Your task to perform on an android device: turn off location history Image 0: 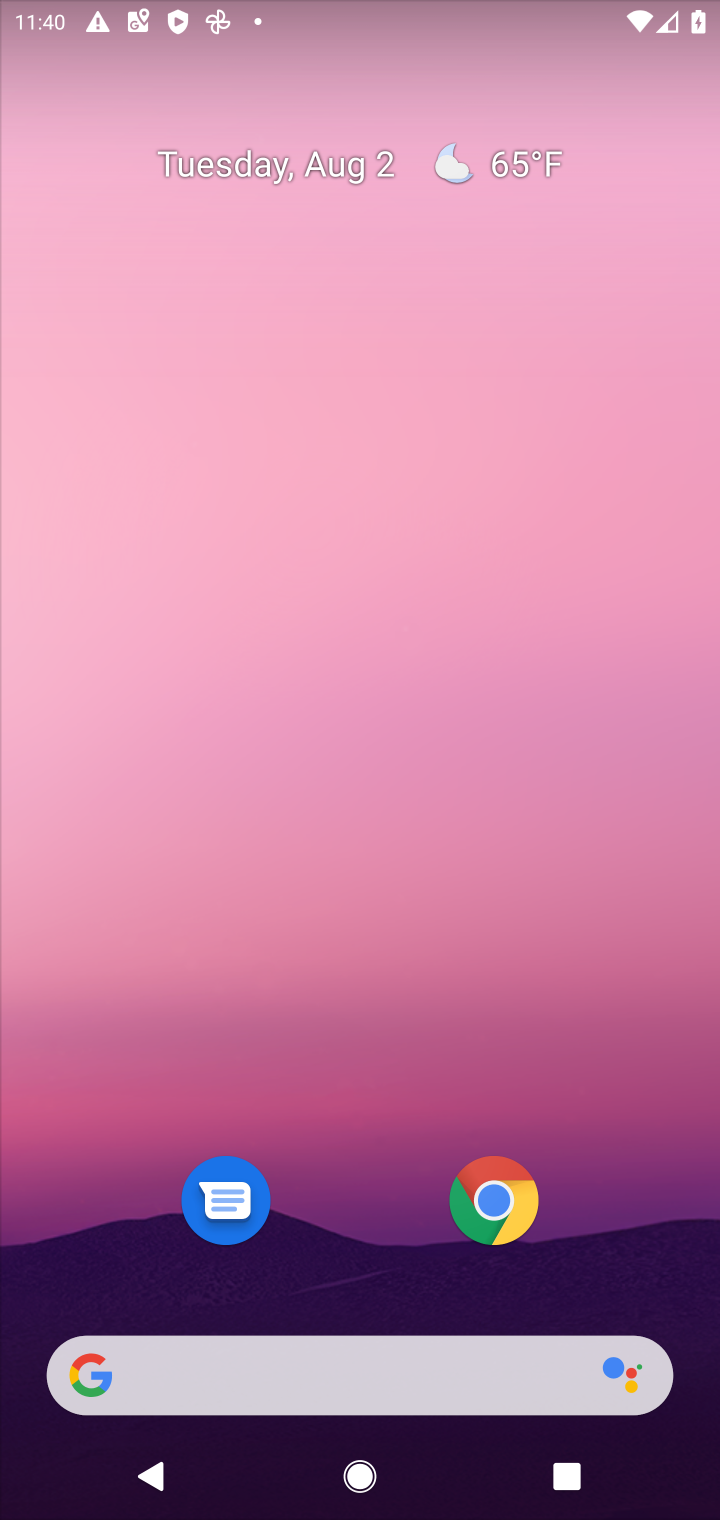
Step 0: drag from (691, 1301) to (607, 195)
Your task to perform on an android device: turn off location history Image 1: 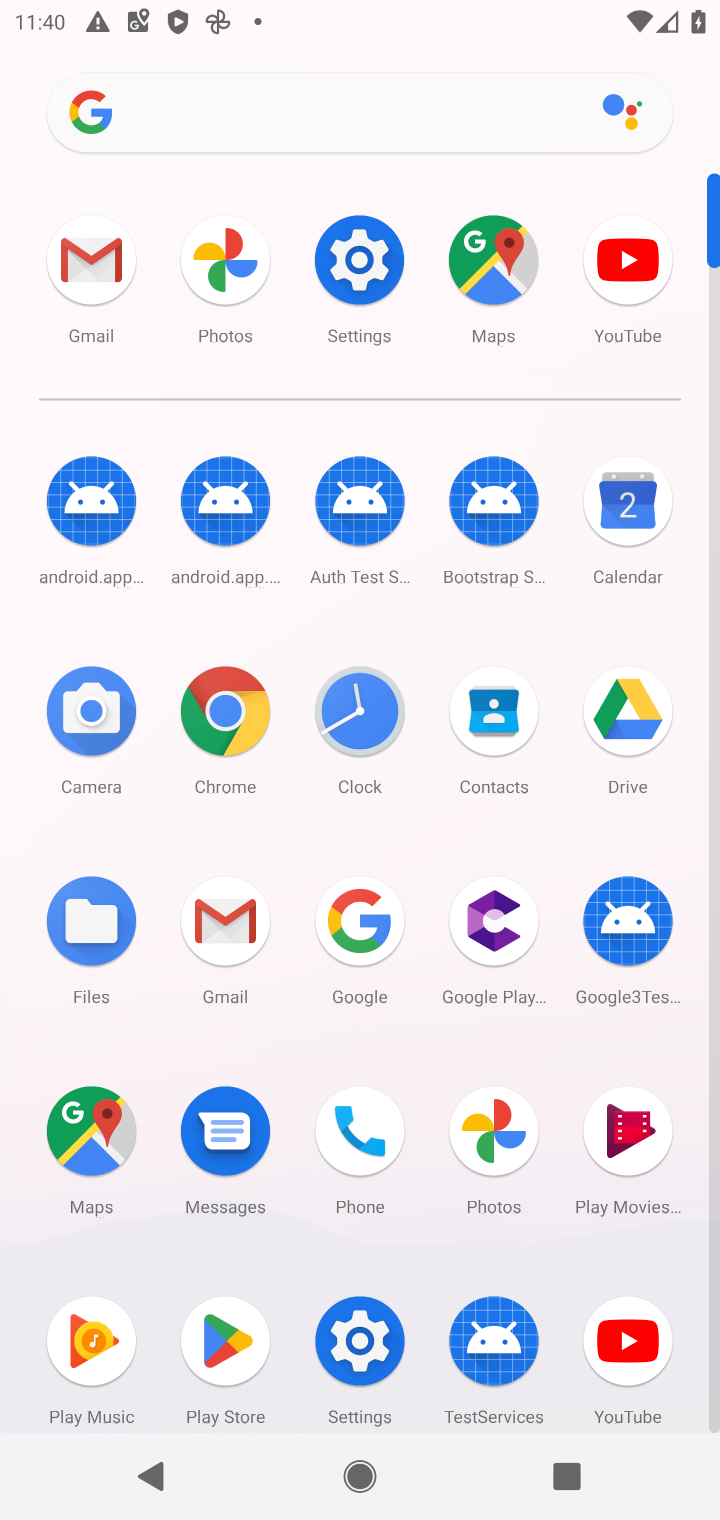
Step 1: click (356, 1336)
Your task to perform on an android device: turn off location history Image 2: 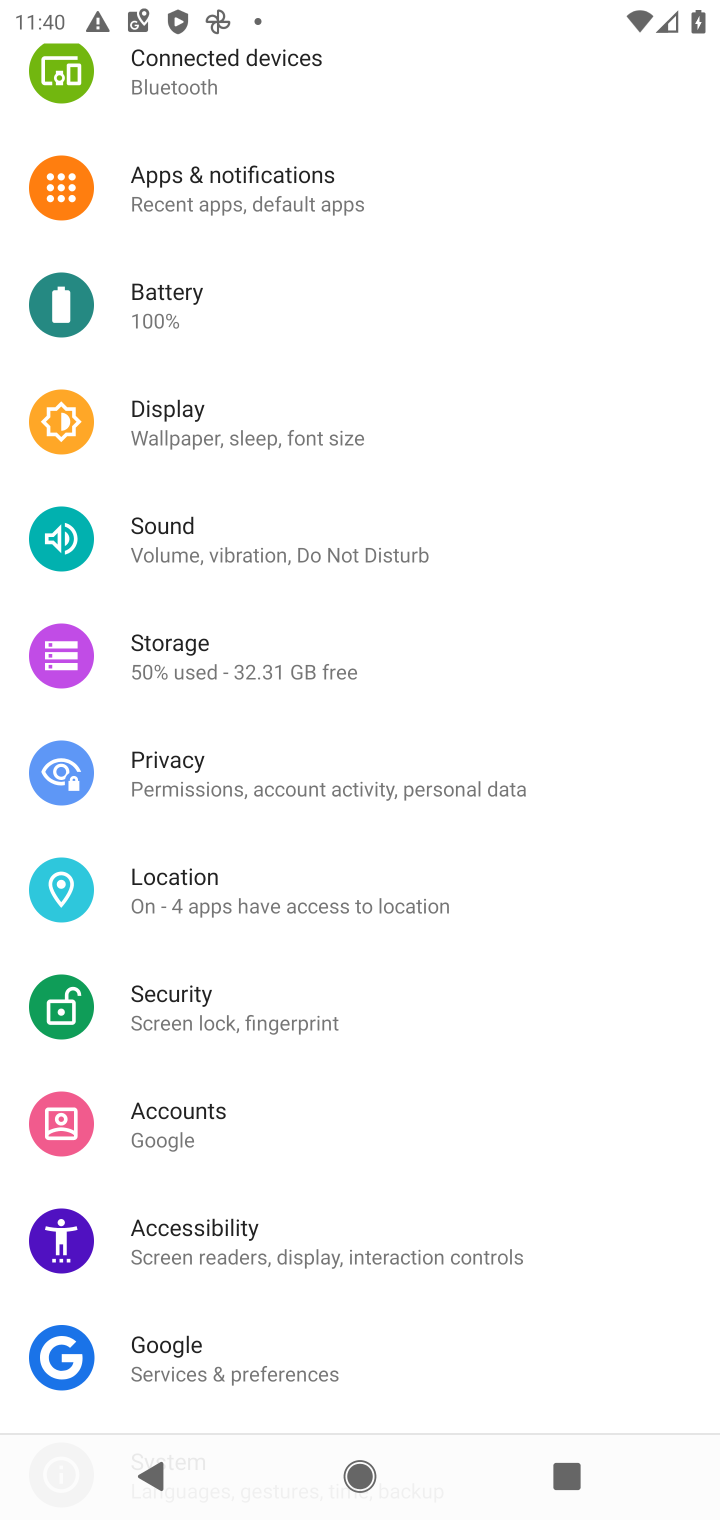
Step 2: click (181, 893)
Your task to perform on an android device: turn off location history Image 3: 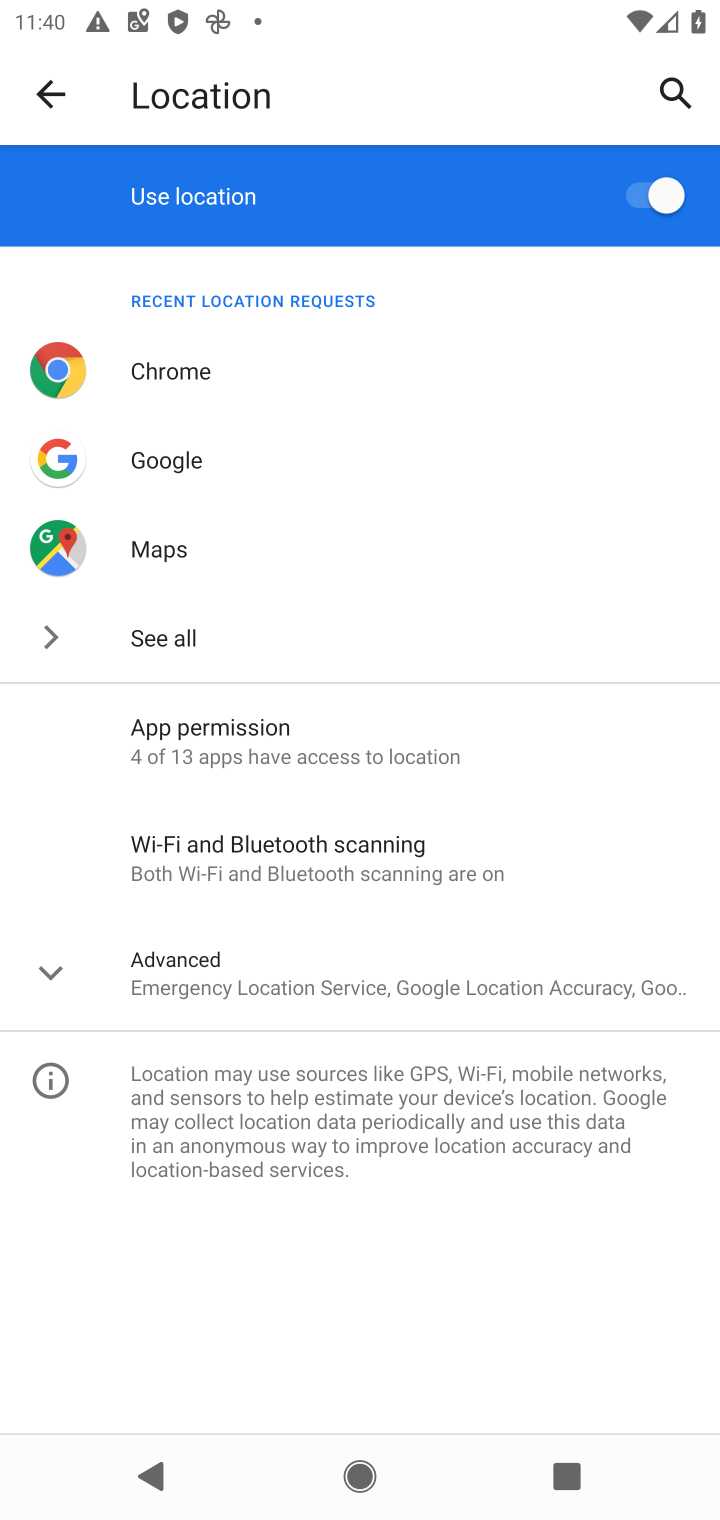
Step 3: click (43, 971)
Your task to perform on an android device: turn off location history Image 4: 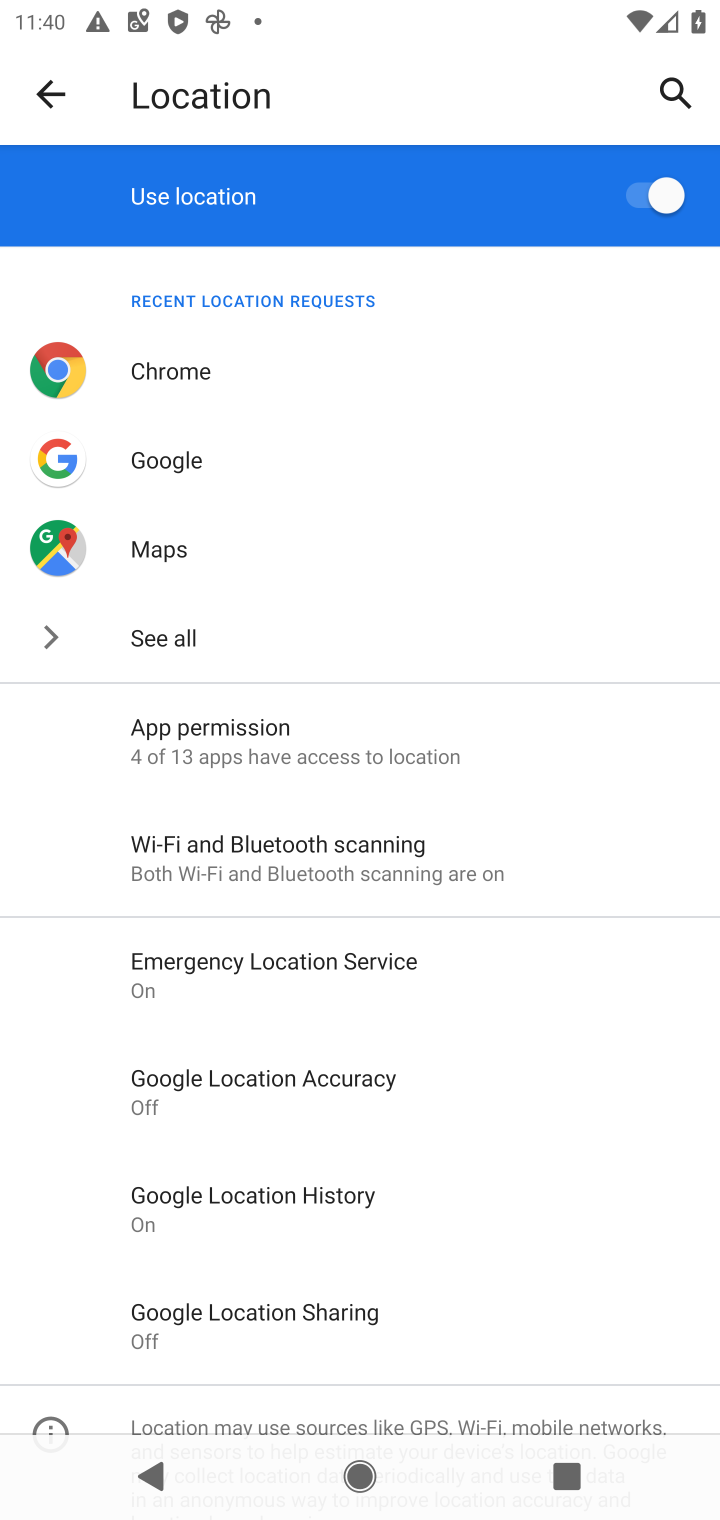
Step 4: click (230, 1193)
Your task to perform on an android device: turn off location history Image 5: 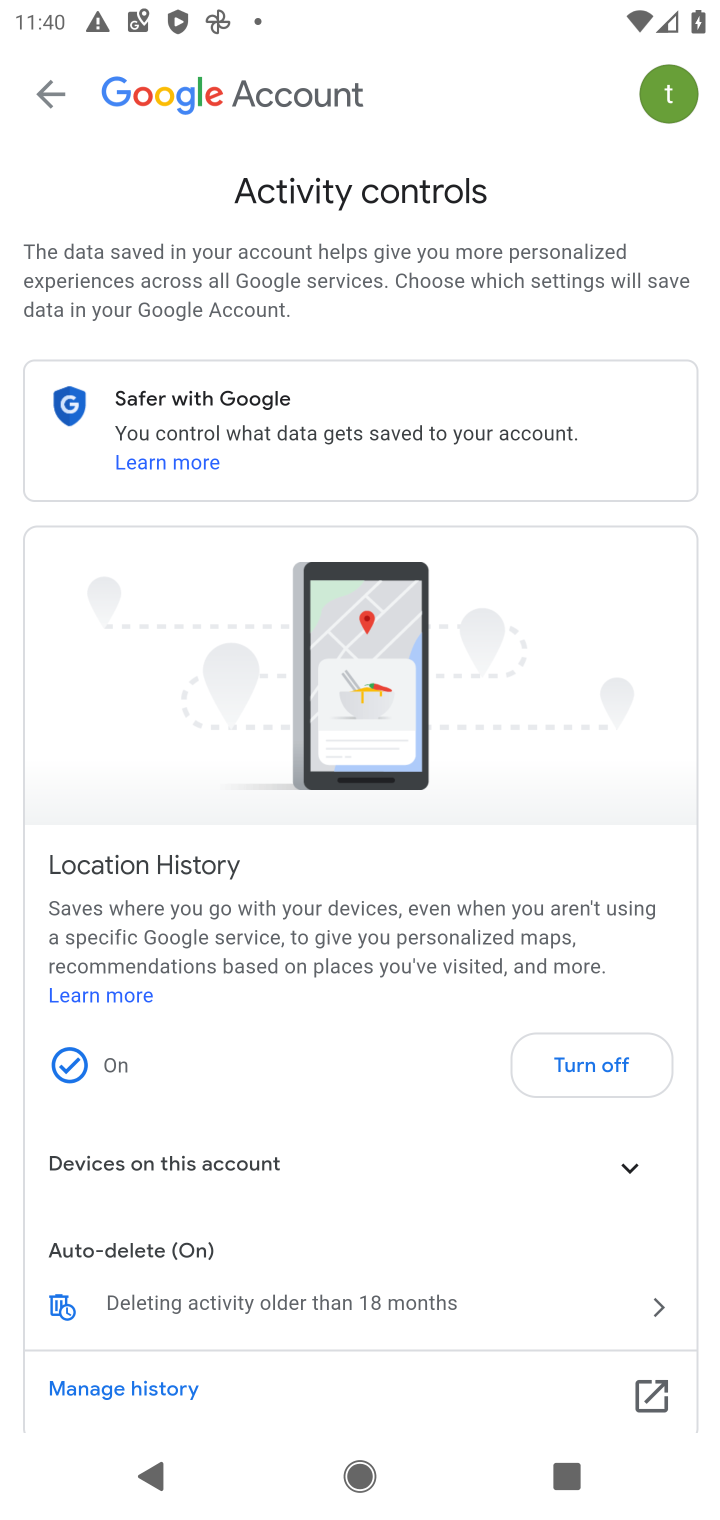
Step 5: click (596, 1063)
Your task to perform on an android device: turn off location history Image 6: 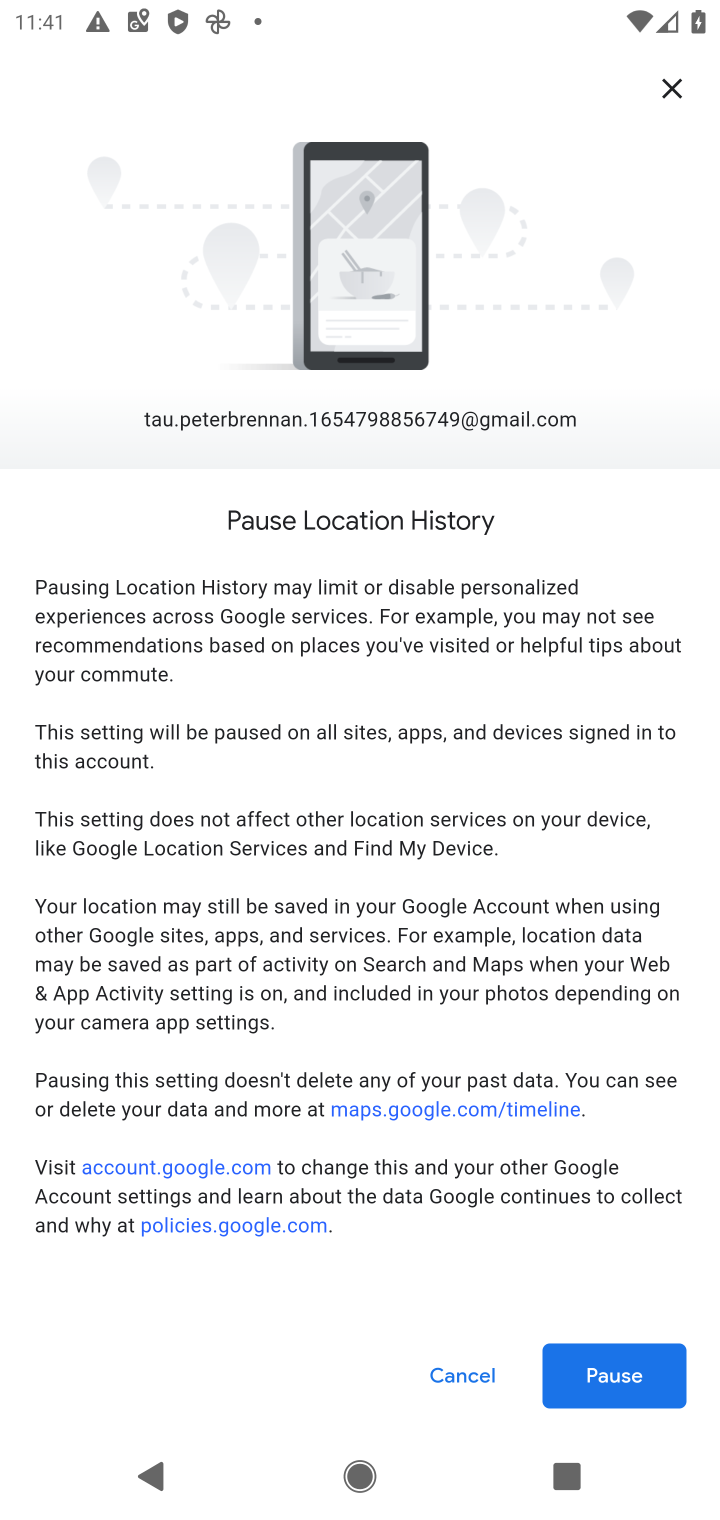
Step 6: click (626, 1381)
Your task to perform on an android device: turn off location history Image 7: 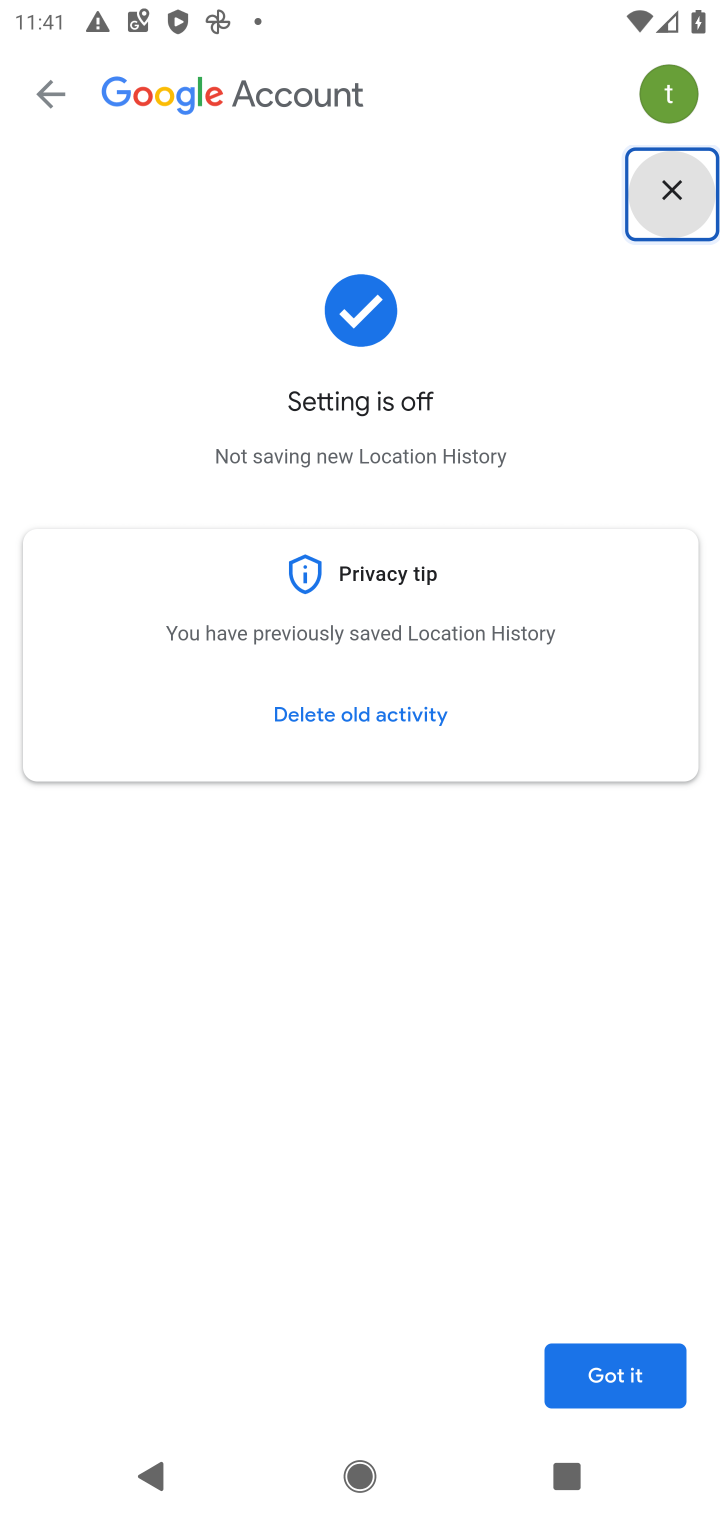
Step 7: click (626, 1381)
Your task to perform on an android device: turn off location history Image 8: 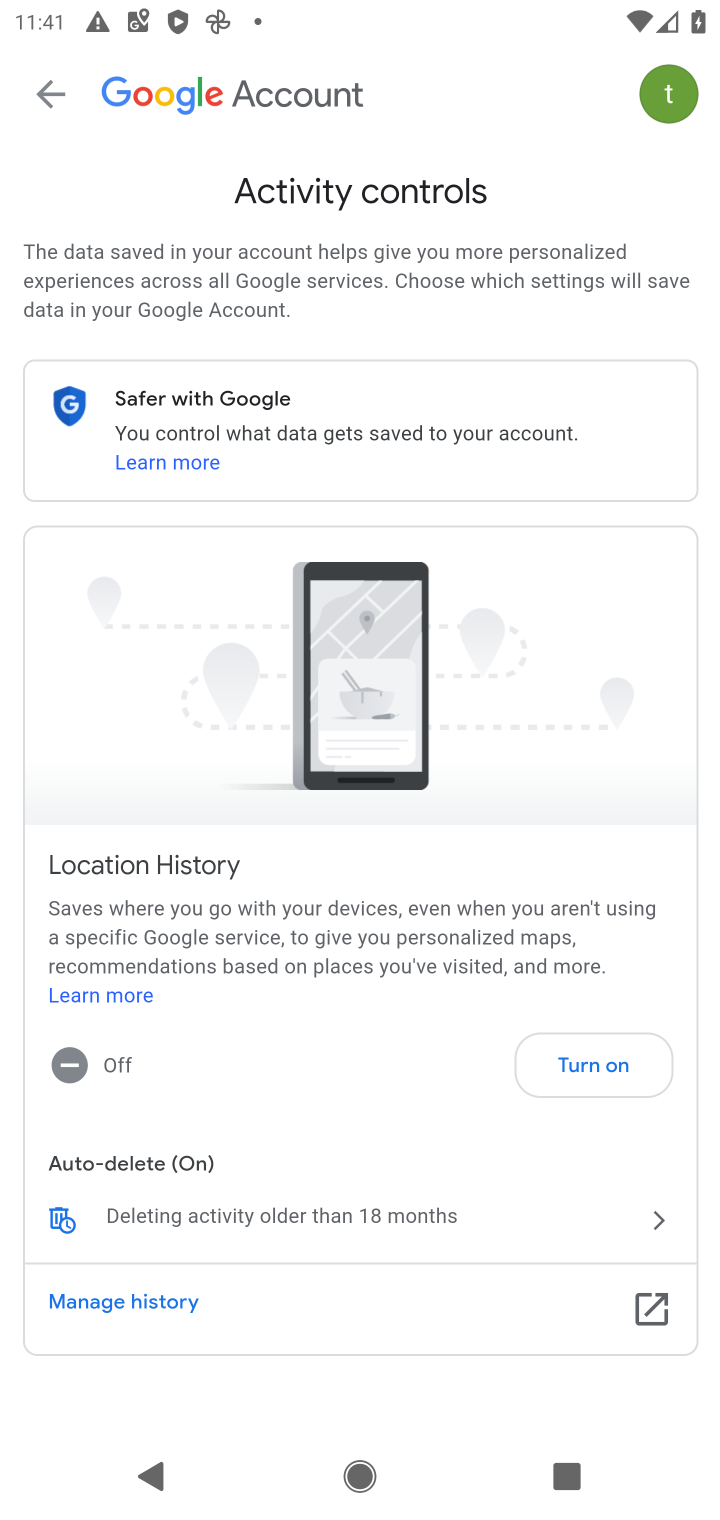
Step 8: task complete